Your task to perform on an android device: allow cookies in the chrome app Image 0: 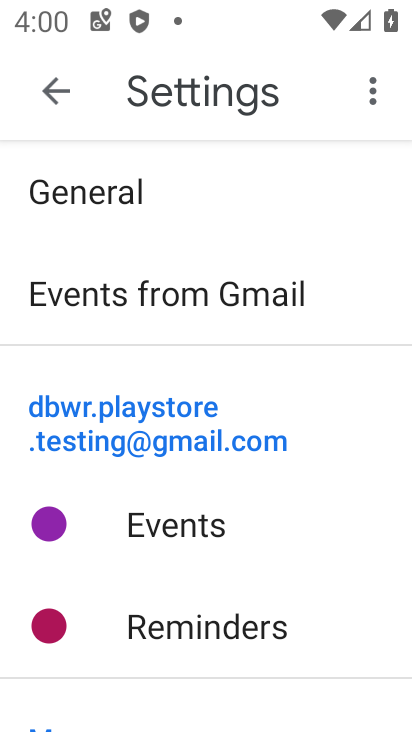
Step 0: press home button
Your task to perform on an android device: allow cookies in the chrome app Image 1: 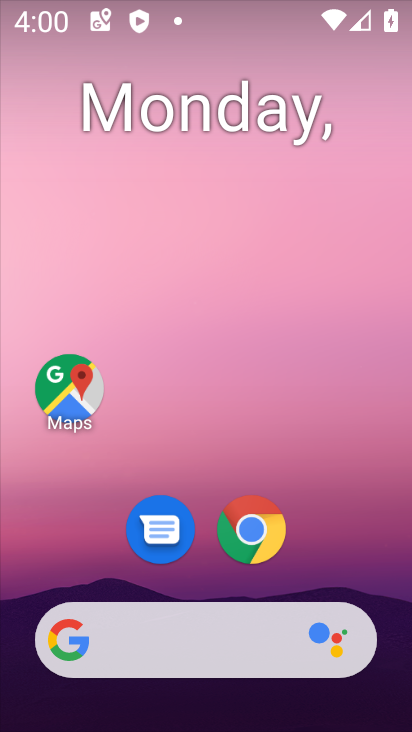
Step 1: click (255, 528)
Your task to perform on an android device: allow cookies in the chrome app Image 2: 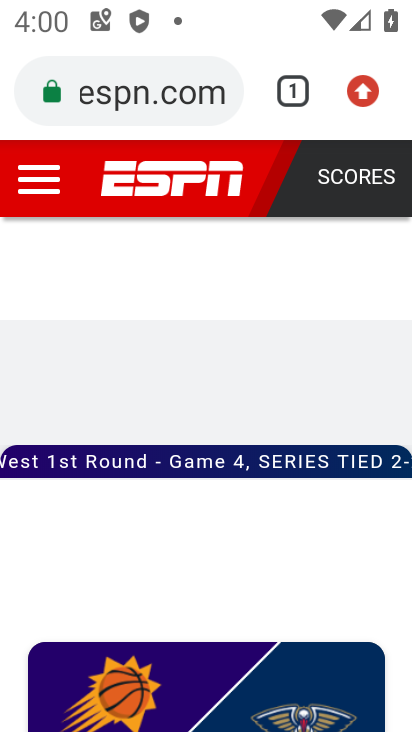
Step 2: click (361, 101)
Your task to perform on an android device: allow cookies in the chrome app Image 3: 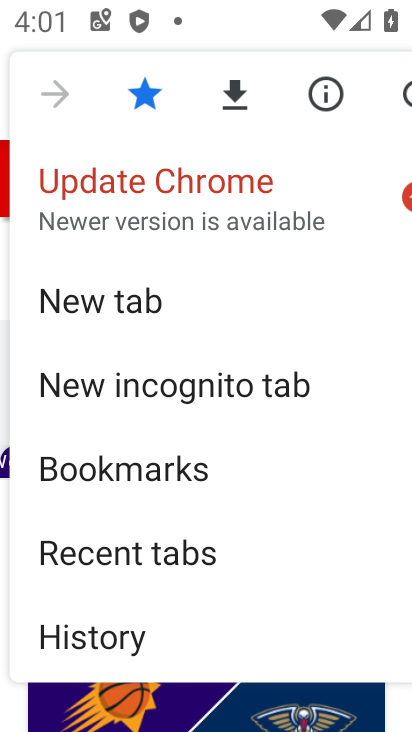
Step 3: drag from (184, 639) to (194, 299)
Your task to perform on an android device: allow cookies in the chrome app Image 4: 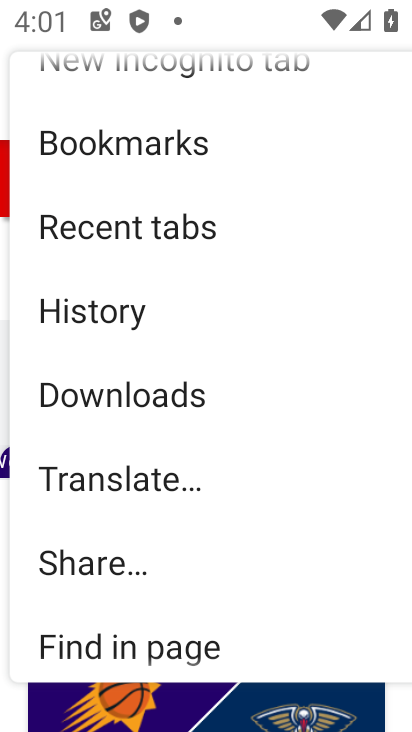
Step 4: drag from (181, 658) to (211, 309)
Your task to perform on an android device: allow cookies in the chrome app Image 5: 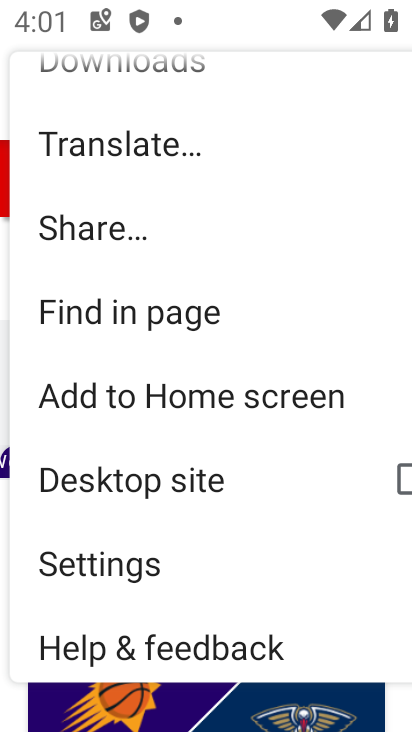
Step 5: click (83, 561)
Your task to perform on an android device: allow cookies in the chrome app Image 6: 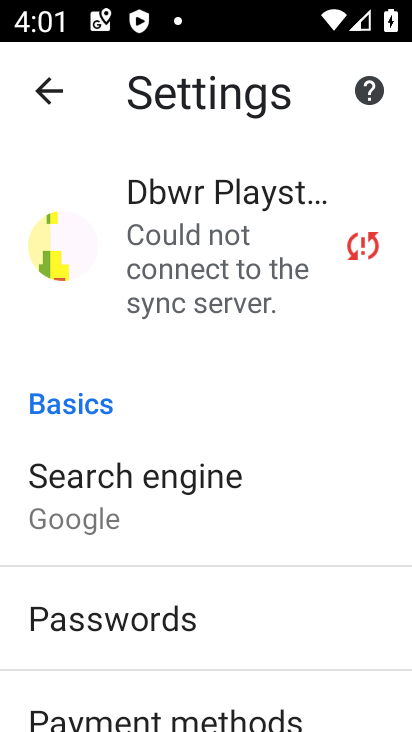
Step 6: drag from (168, 679) to (178, 277)
Your task to perform on an android device: allow cookies in the chrome app Image 7: 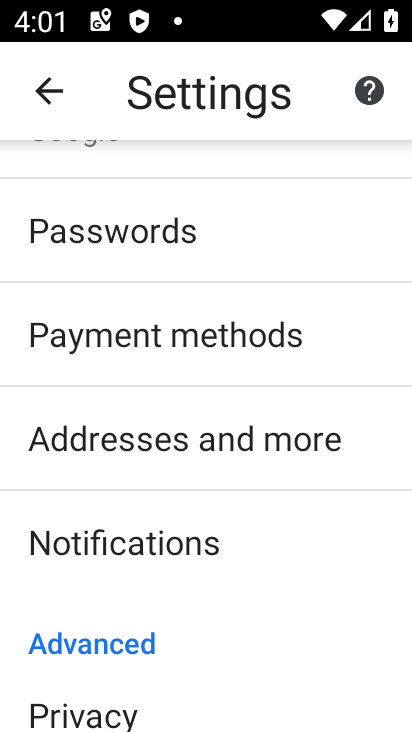
Step 7: drag from (176, 691) to (188, 317)
Your task to perform on an android device: allow cookies in the chrome app Image 8: 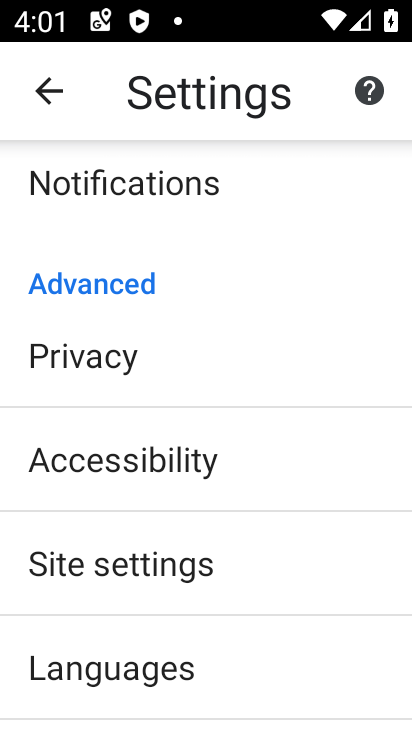
Step 8: click (134, 563)
Your task to perform on an android device: allow cookies in the chrome app Image 9: 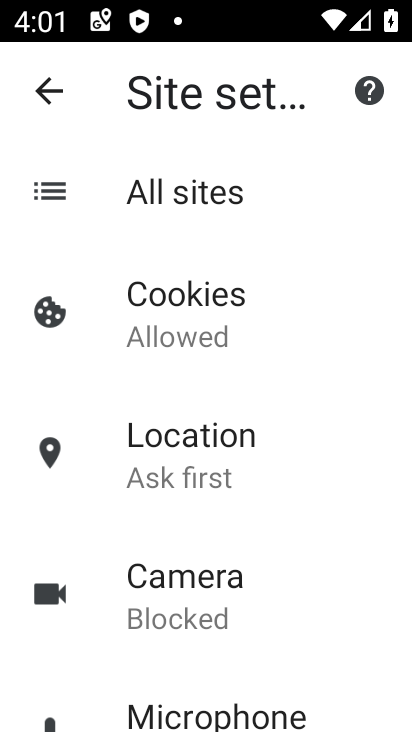
Step 9: click (198, 310)
Your task to perform on an android device: allow cookies in the chrome app Image 10: 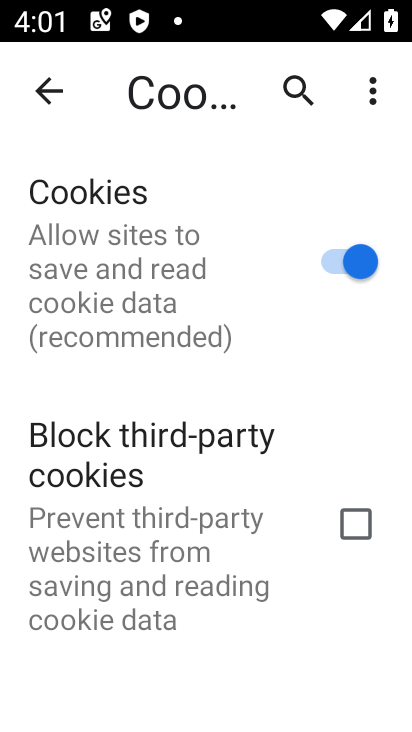
Step 10: task complete